Your task to perform on an android device: Check the weather Image 0: 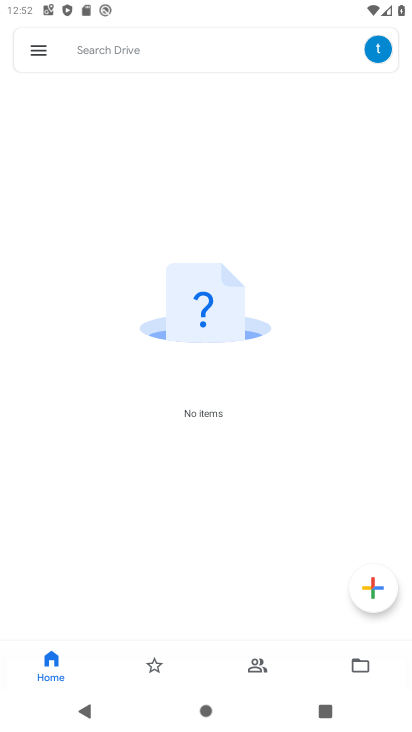
Step 0: drag from (226, 588) to (253, 165)
Your task to perform on an android device: Check the weather Image 1: 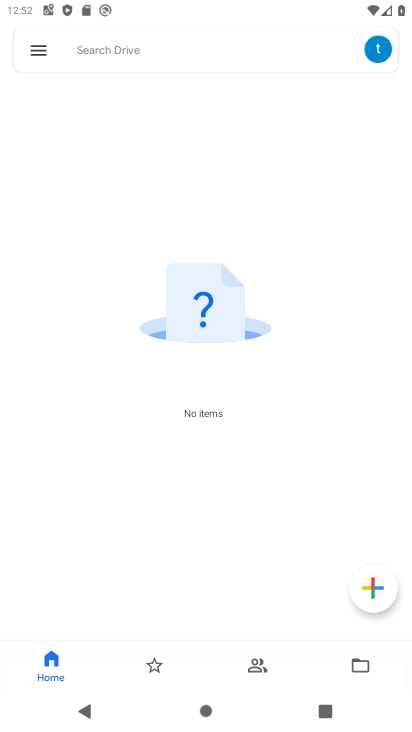
Step 1: press home button
Your task to perform on an android device: Check the weather Image 2: 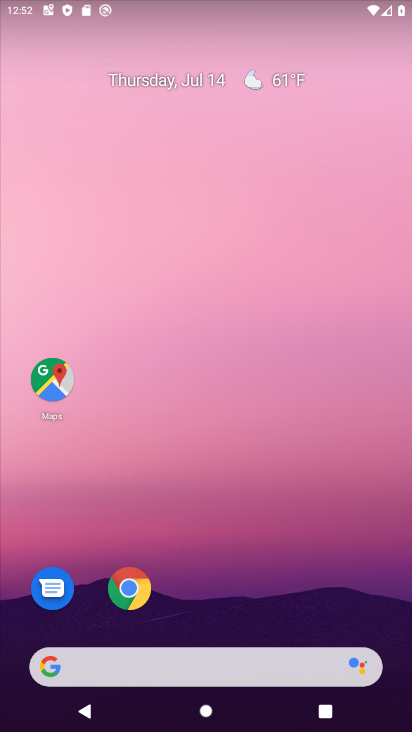
Step 2: drag from (296, 598) to (293, 248)
Your task to perform on an android device: Check the weather Image 3: 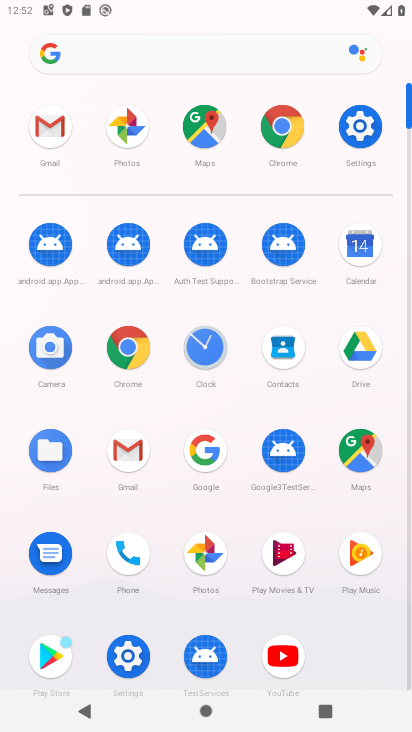
Step 3: click (276, 111)
Your task to perform on an android device: Check the weather Image 4: 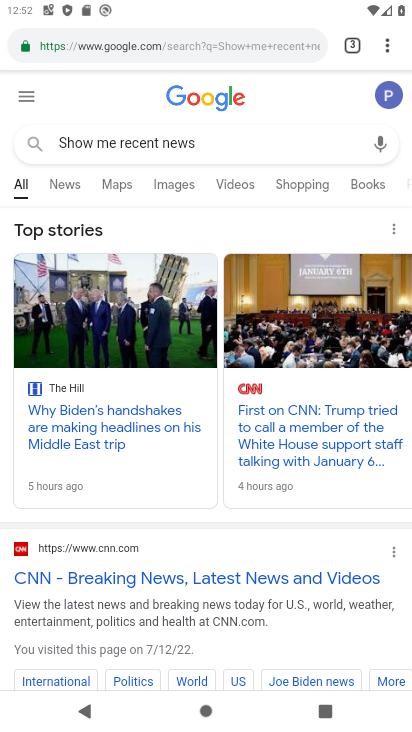
Step 4: click (385, 31)
Your task to perform on an android device: Check the weather Image 5: 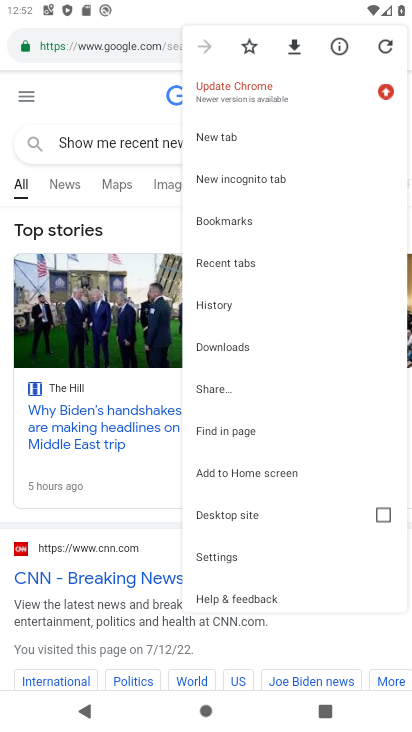
Step 5: click (204, 146)
Your task to perform on an android device: Check the weather Image 6: 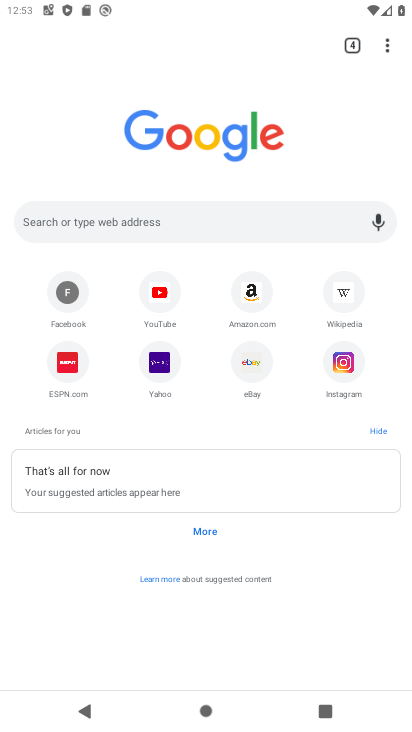
Step 6: click (145, 206)
Your task to perform on an android device: Check the weather Image 7: 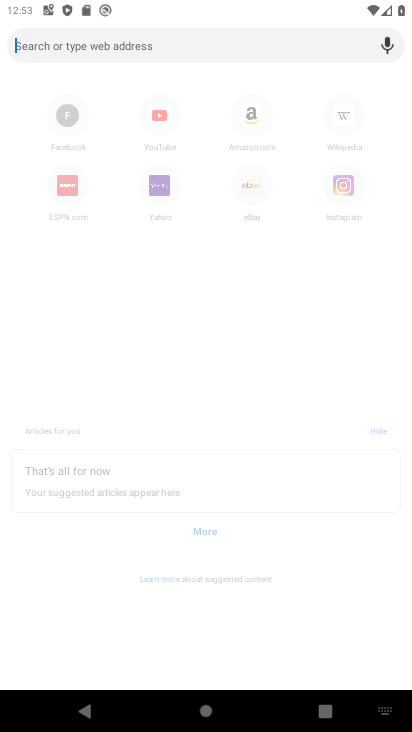
Step 7: type "Check the weather "
Your task to perform on an android device: Check the weather Image 8: 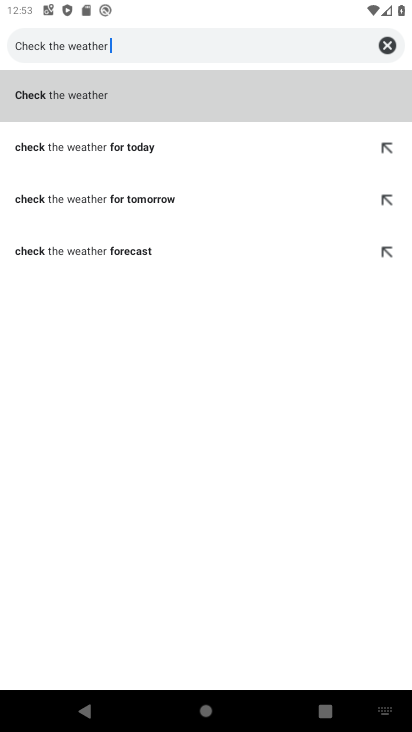
Step 8: click (198, 90)
Your task to perform on an android device: Check the weather Image 9: 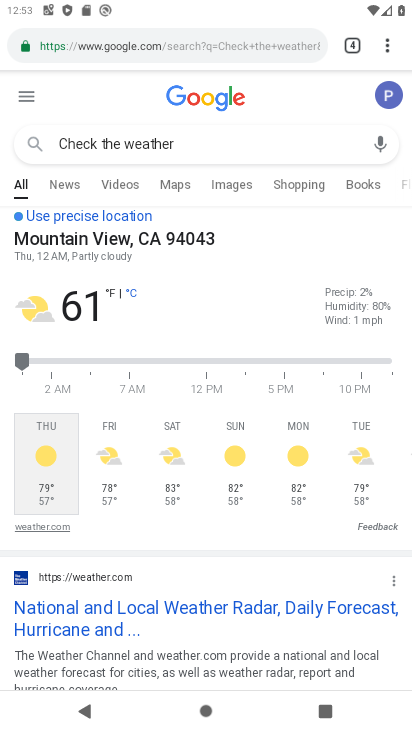
Step 9: task complete